Your task to perform on an android device: What's on my calendar tomorrow? Image 0: 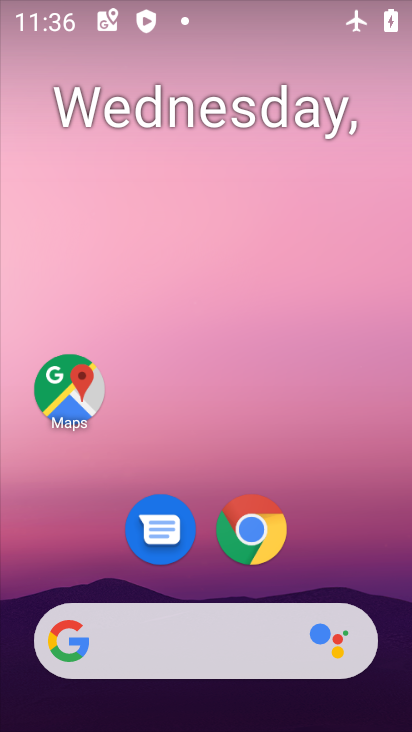
Step 0: drag from (223, 571) to (140, 46)
Your task to perform on an android device: What's on my calendar tomorrow? Image 1: 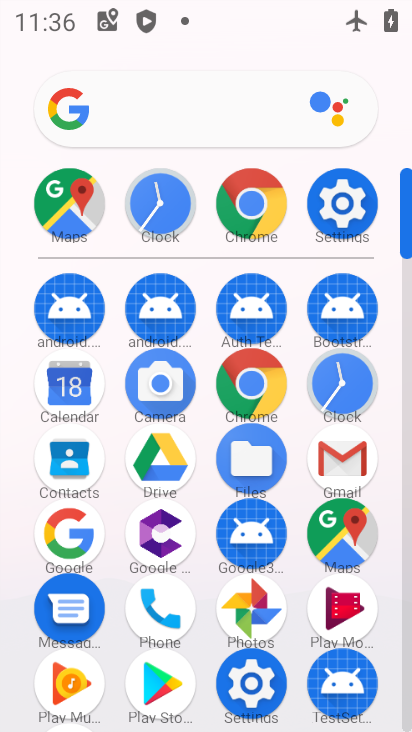
Step 1: click (86, 386)
Your task to perform on an android device: What's on my calendar tomorrow? Image 2: 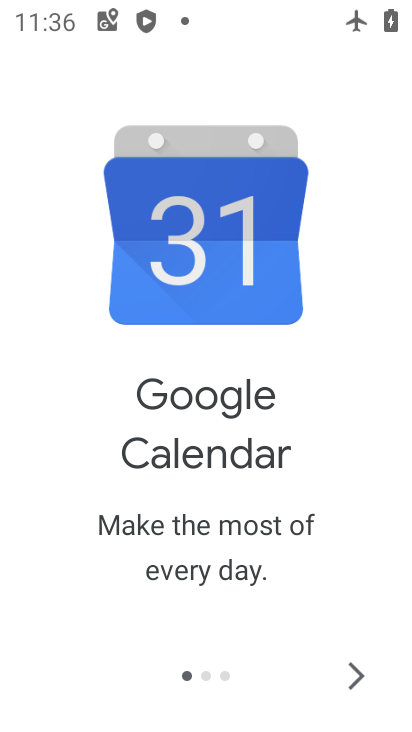
Step 2: click (356, 664)
Your task to perform on an android device: What's on my calendar tomorrow? Image 3: 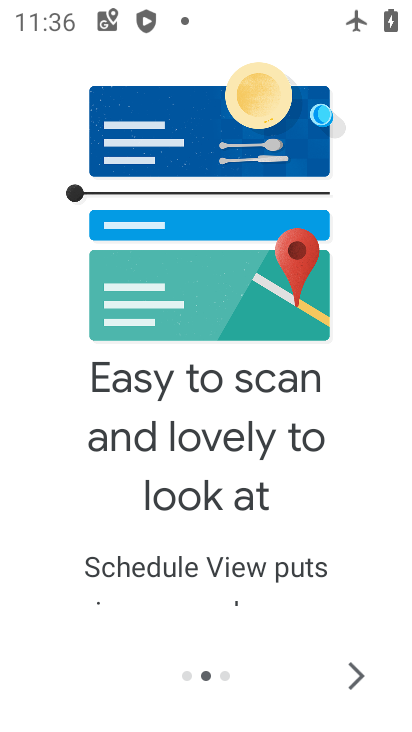
Step 3: click (359, 676)
Your task to perform on an android device: What's on my calendar tomorrow? Image 4: 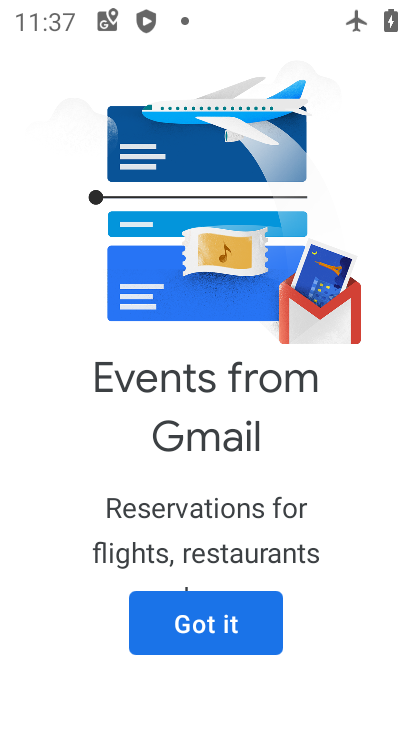
Step 4: click (224, 626)
Your task to perform on an android device: What's on my calendar tomorrow? Image 5: 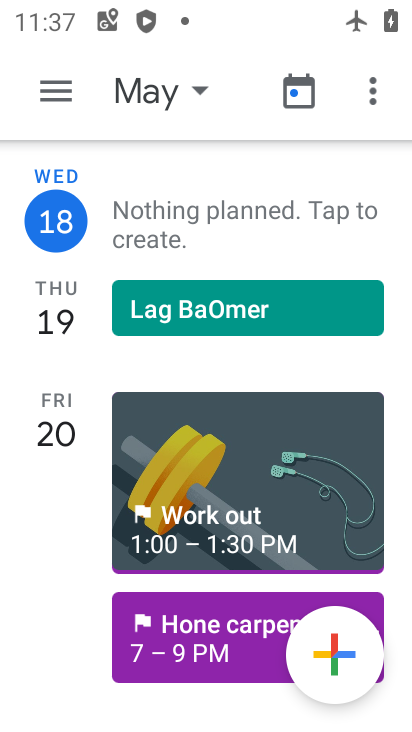
Step 5: click (50, 323)
Your task to perform on an android device: What's on my calendar tomorrow? Image 6: 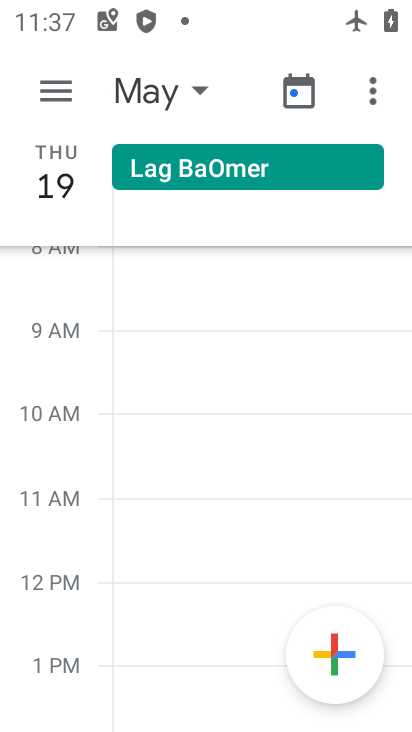
Step 6: click (53, 80)
Your task to perform on an android device: What's on my calendar tomorrow? Image 7: 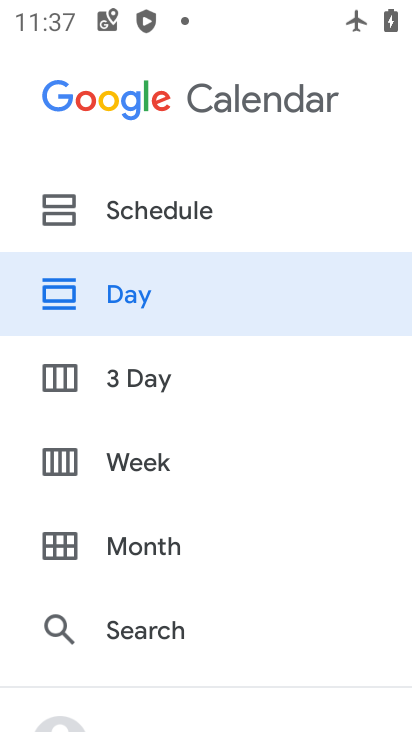
Step 7: task complete